Your task to perform on an android device: See recent photos Image 0: 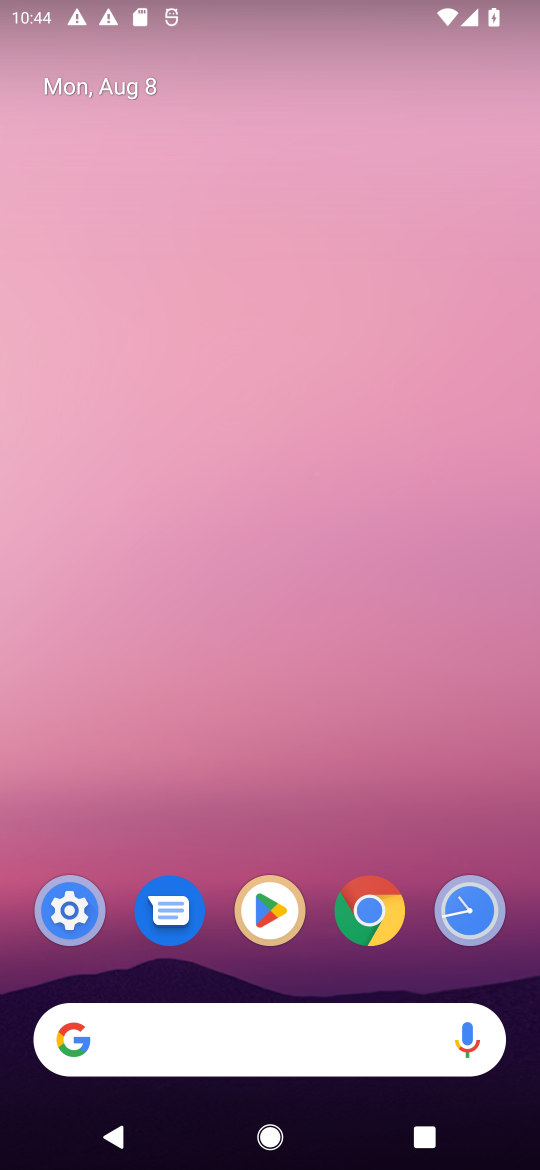
Step 0: drag from (307, 968) to (239, 75)
Your task to perform on an android device: See recent photos Image 1: 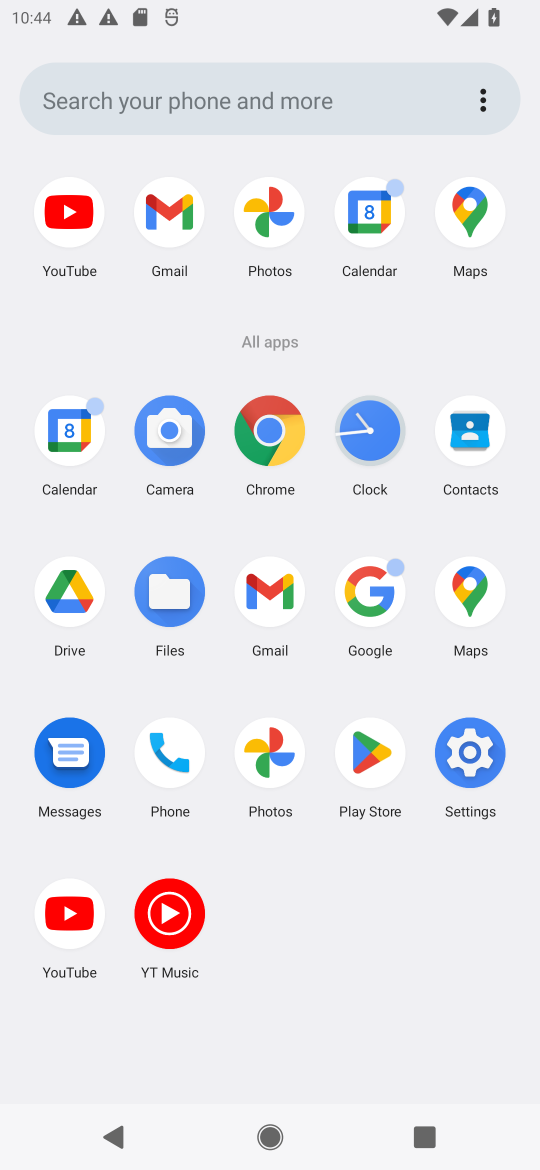
Step 1: click (282, 757)
Your task to perform on an android device: See recent photos Image 2: 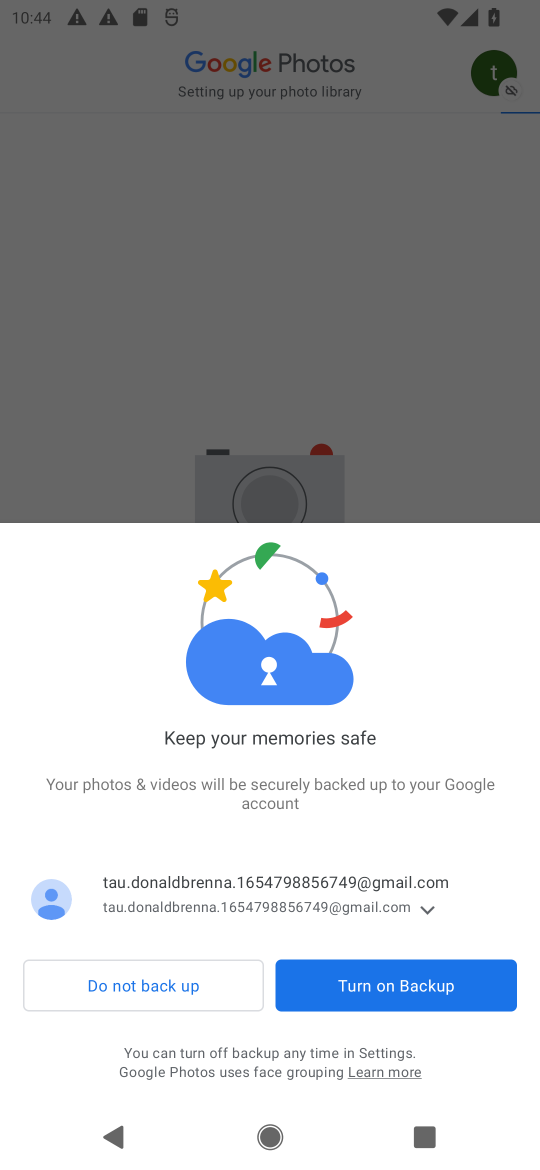
Step 2: click (414, 973)
Your task to perform on an android device: See recent photos Image 3: 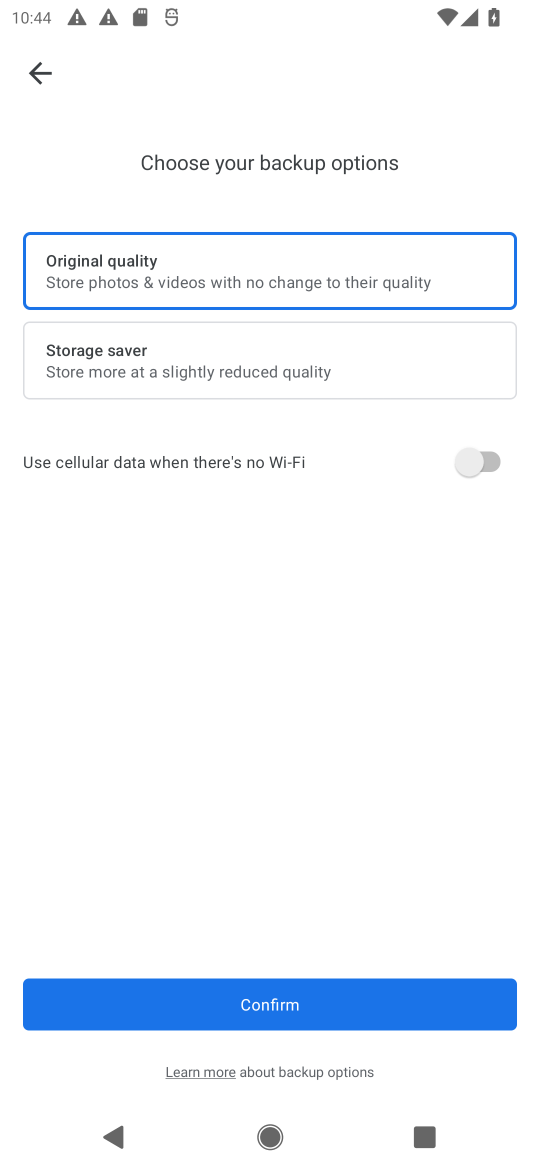
Step 3: click (378, 998)
Your task to perform on an android device: See recent photos Image 4: 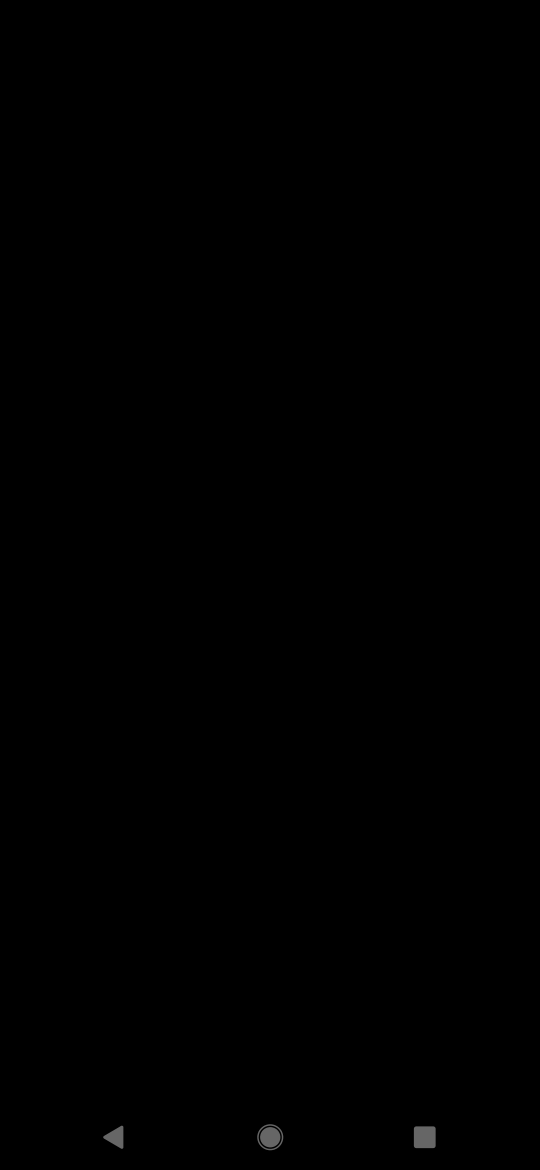
Step 4: press back button
Your task to perform on an android device: See recent photos Image 5: 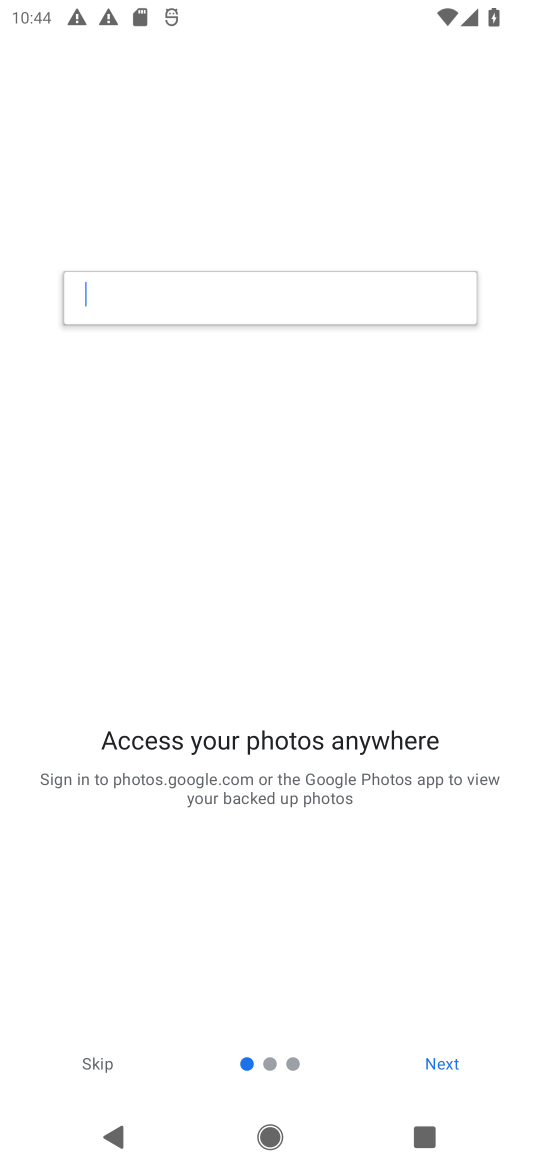
Step 5: press back button
Your task to perform on an android device: See recent photos Image 6: 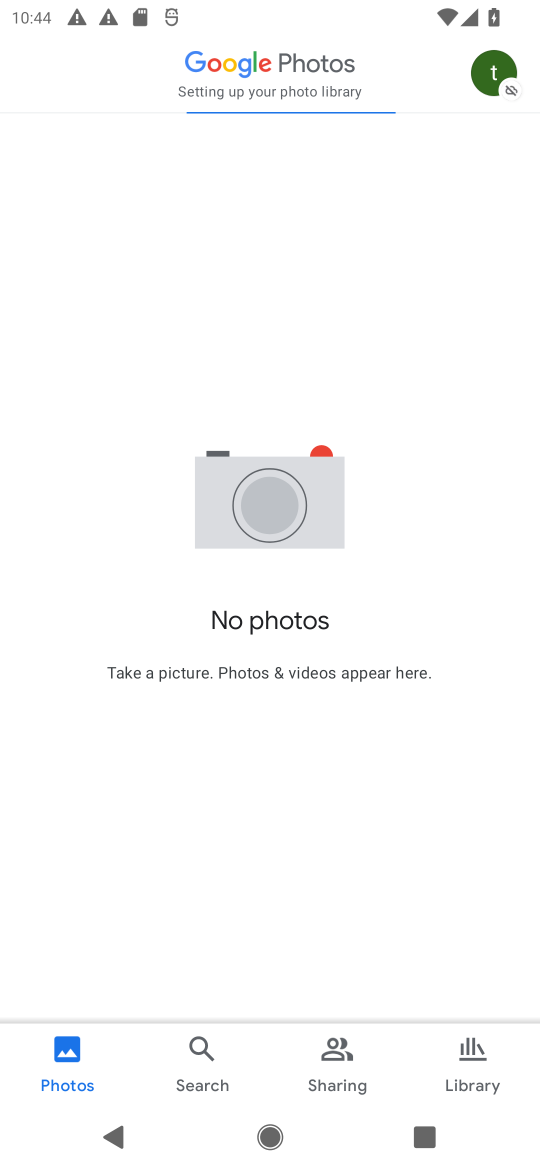
Step 6: press back button
Your task to perform on an android device: See recent photos Image 7: 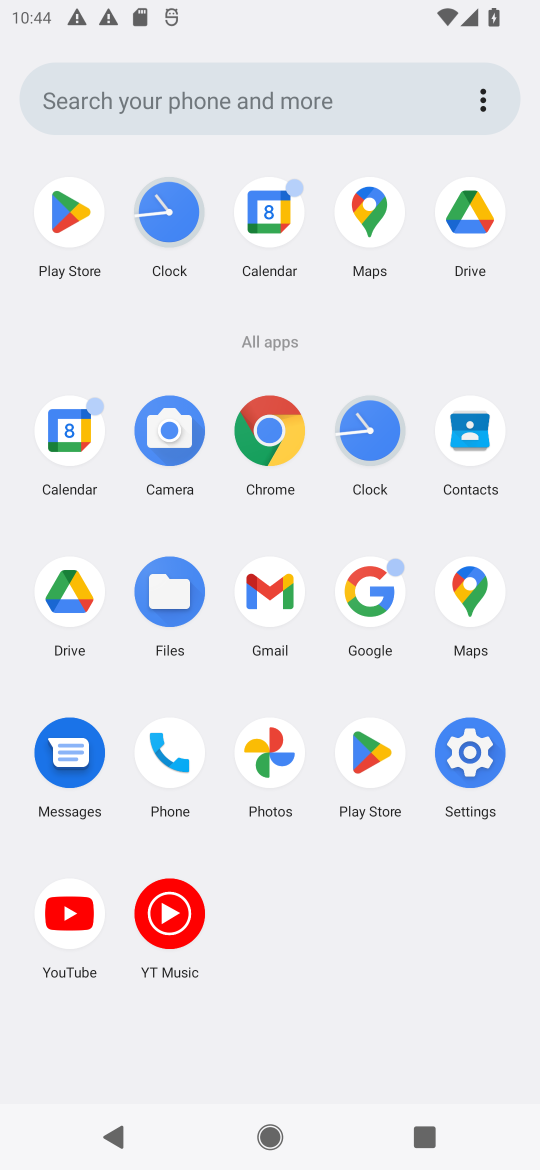
Step 7: click (264, 740)
Your task to perform on an android device: See recent photos Image 8: 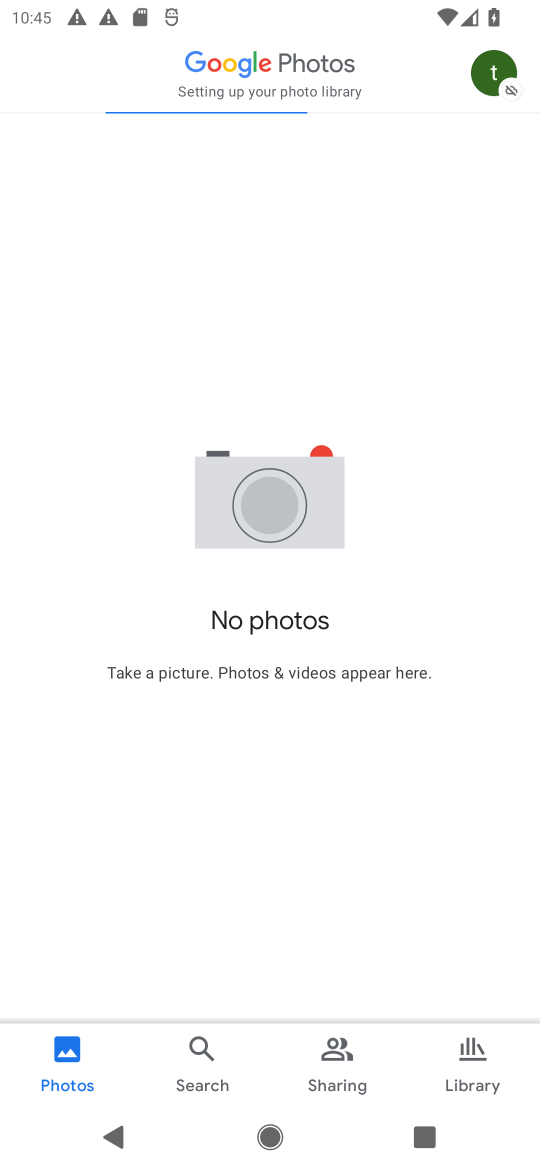
Step 8: click (474, 1052)
Your task to perform on an android device: See recent photos Image 9: 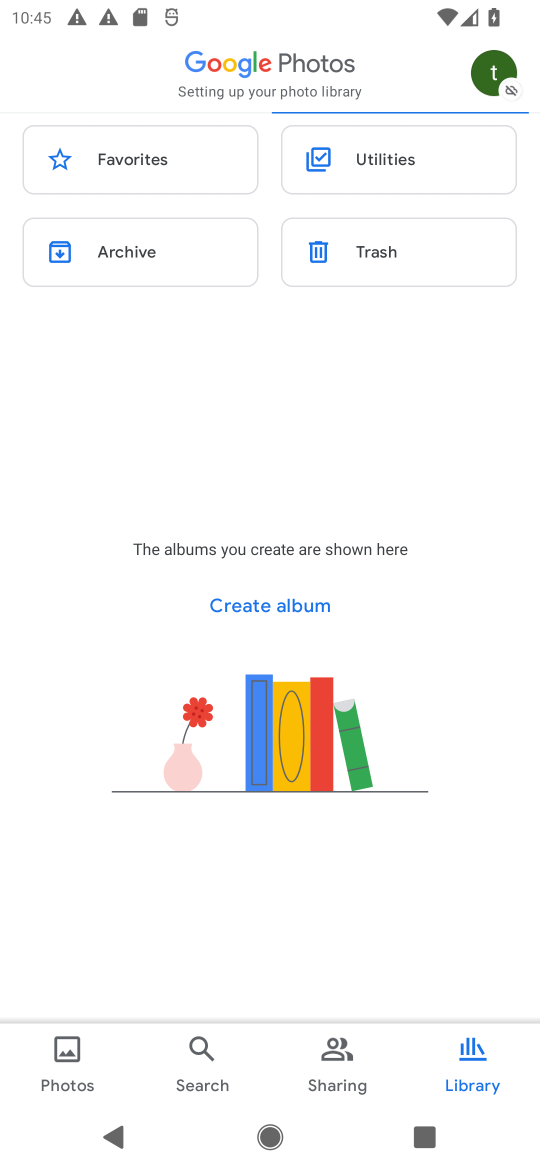
Step 9: click (168, 161)
Your task to perform on an android device: See recent photos Image 10: 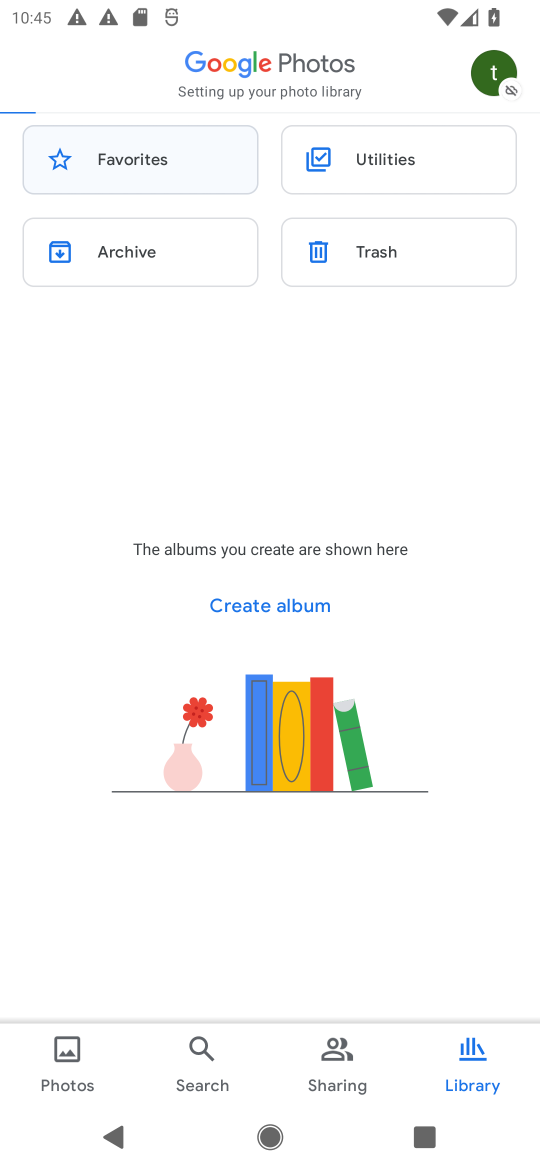
Step 10: task complete